Your task to perform on an android device: Search for beats solo 3 on walmart, select the first entry, add it to the cart, then select checkout. Image 0: 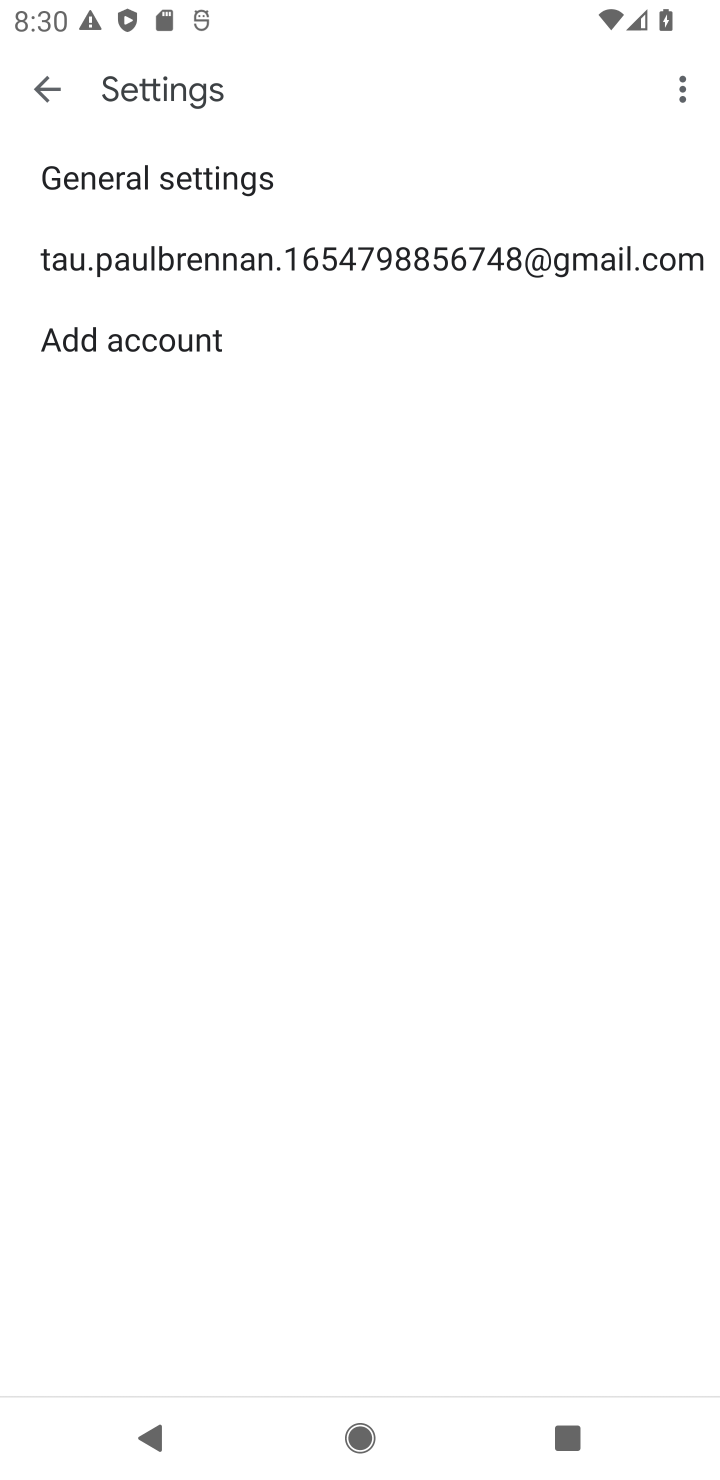
Step 0: press home button
Your task to perform on an android device: Search for beats solo 3 on walmart, select the first entry, add it to the cart, then select checkout. Image 1: 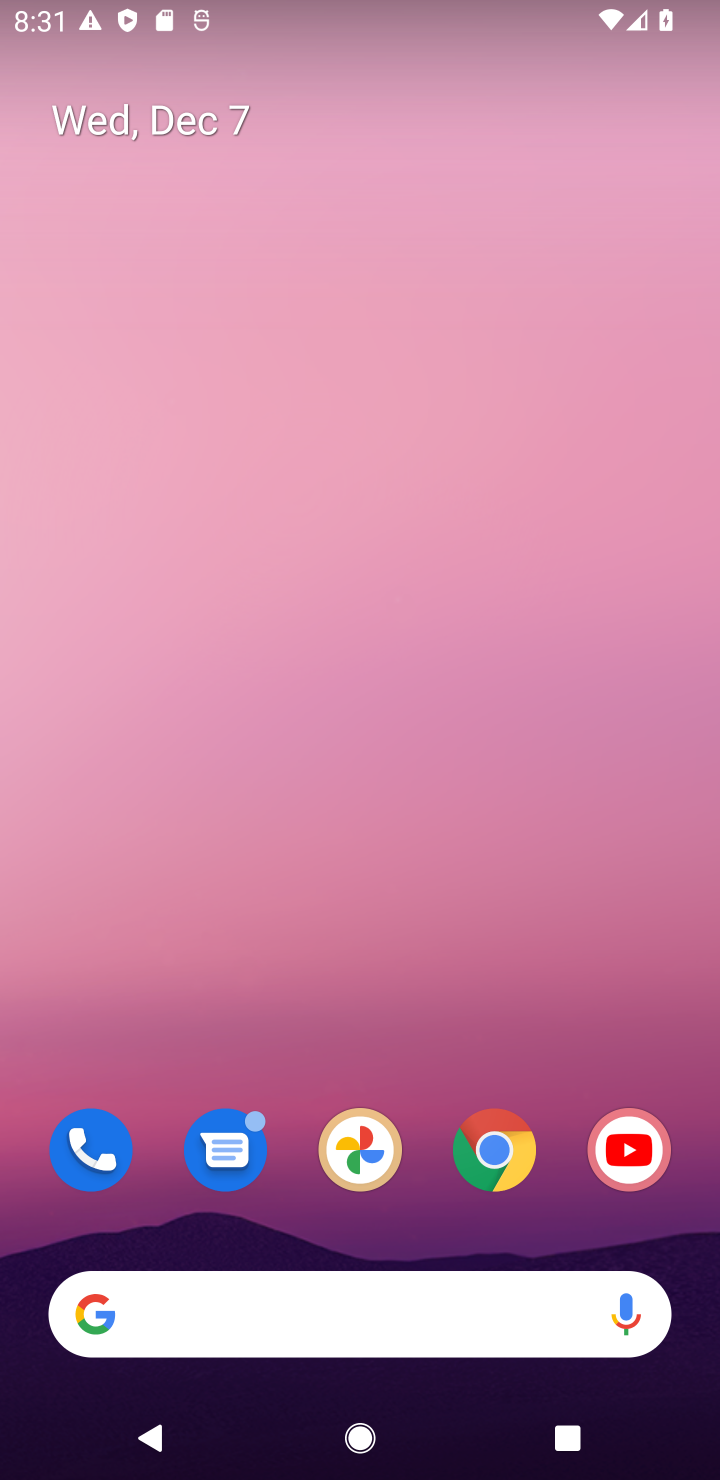
Step 1: click (495, 1140)
Your task to perform on an android device: Search for beats solo 3 on walmart, select the first entry, add it to the cart, then select checkout. Image 2: 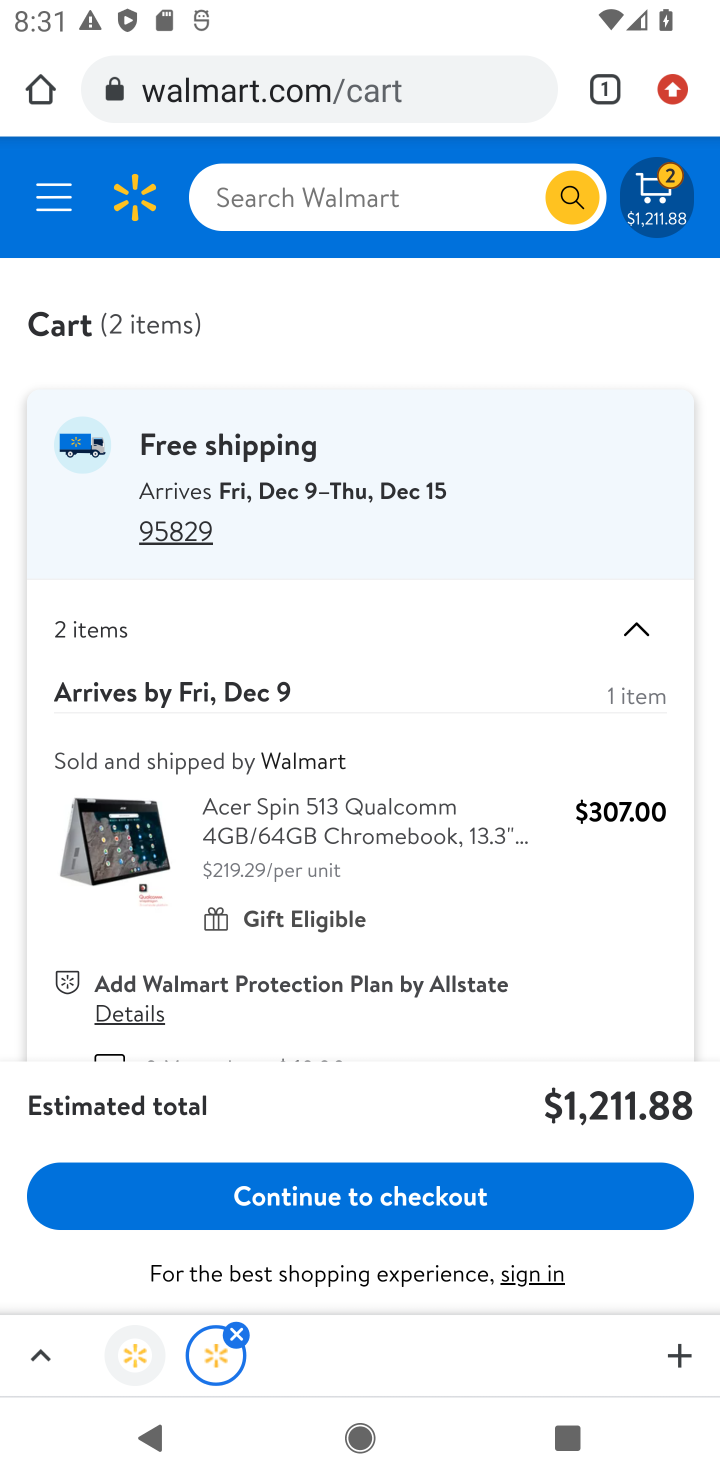
Step 2: click (367, 191)
Your task to perform on an android device: Search for beats solo 3 on walmart, select the first entry, add it to the cart, then select checkout. Image 3: 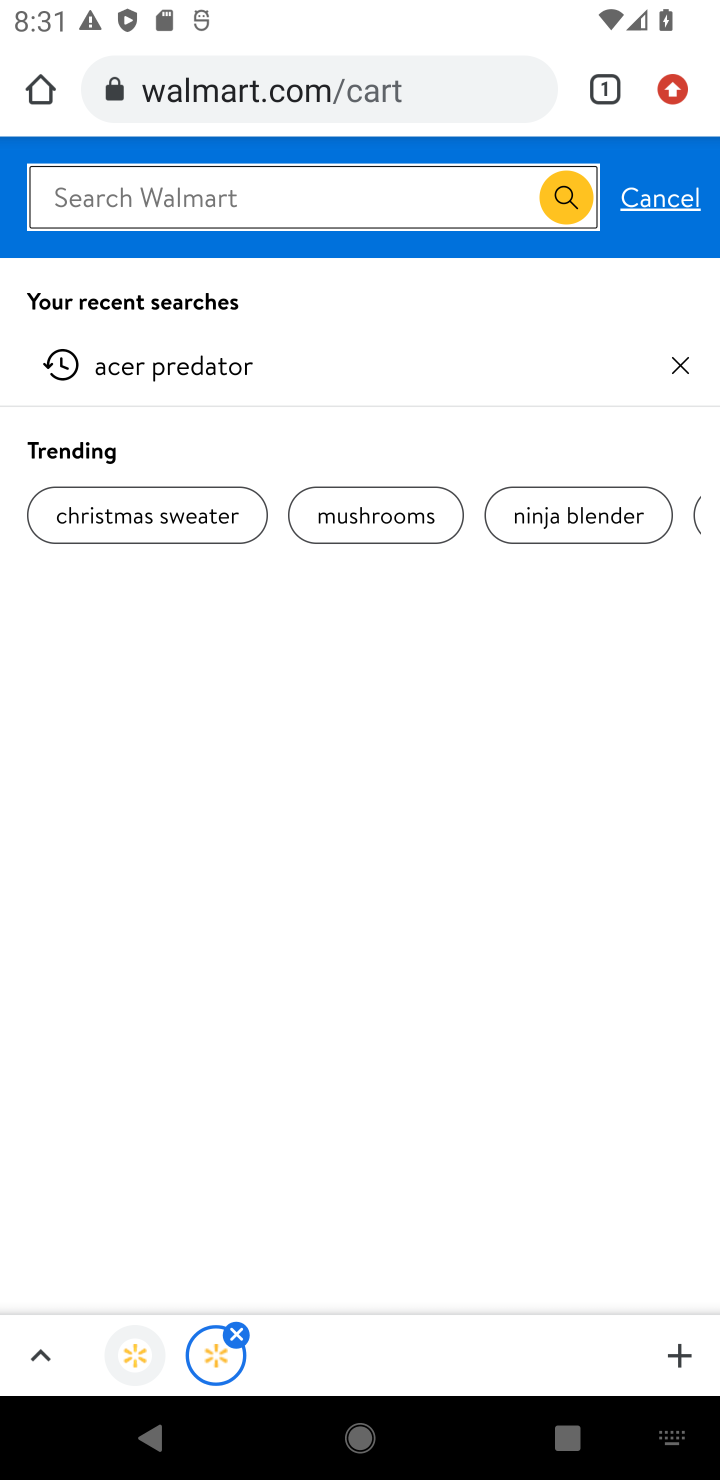
Step 3: type "beats solo 3"
Your task to perform on an android device: Search for beats solo 3 on walmart, select the first entry, add it to the cart, then select checkout. Image 4: 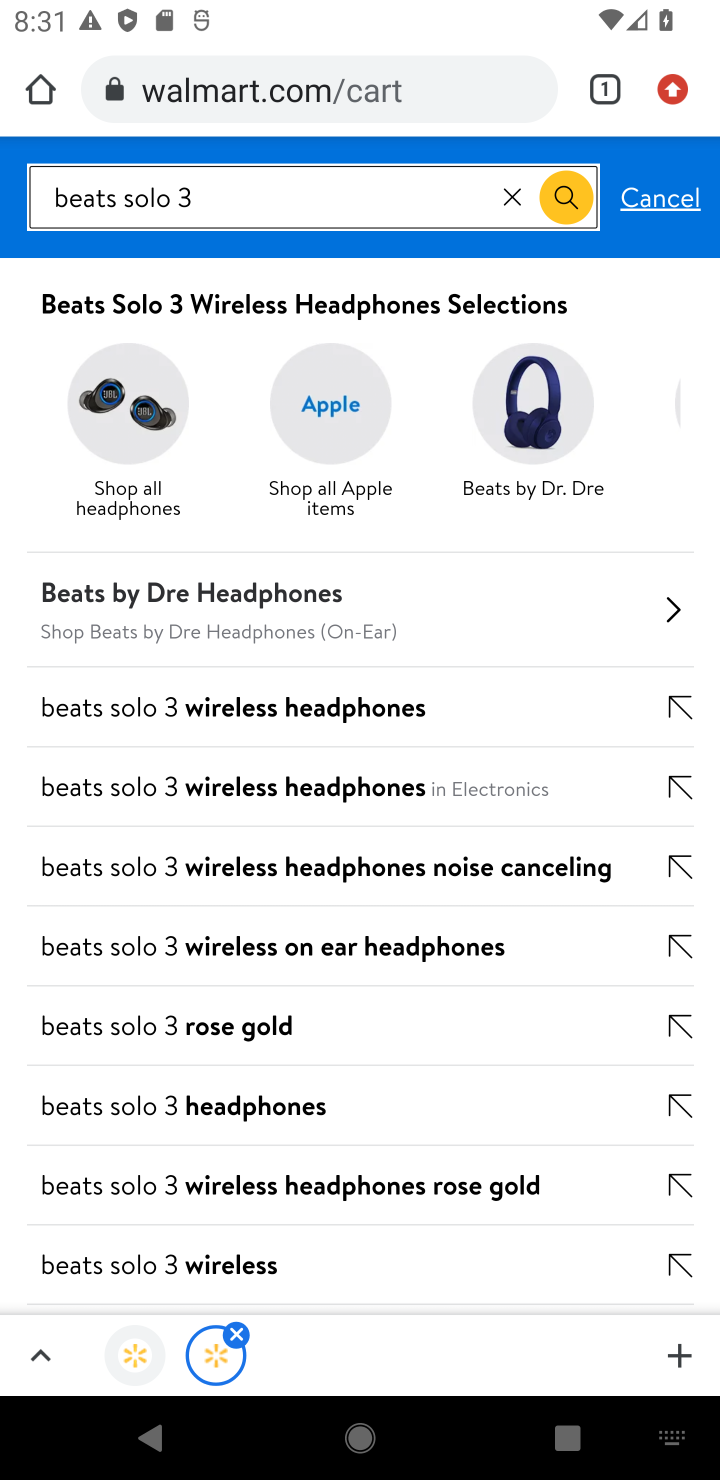
Step 4: click (251, 599)
Your task to perform on an android device: Search for beats solo 3 on walmart, select the first entry, add it to the cart, then select checkout. Image 5: 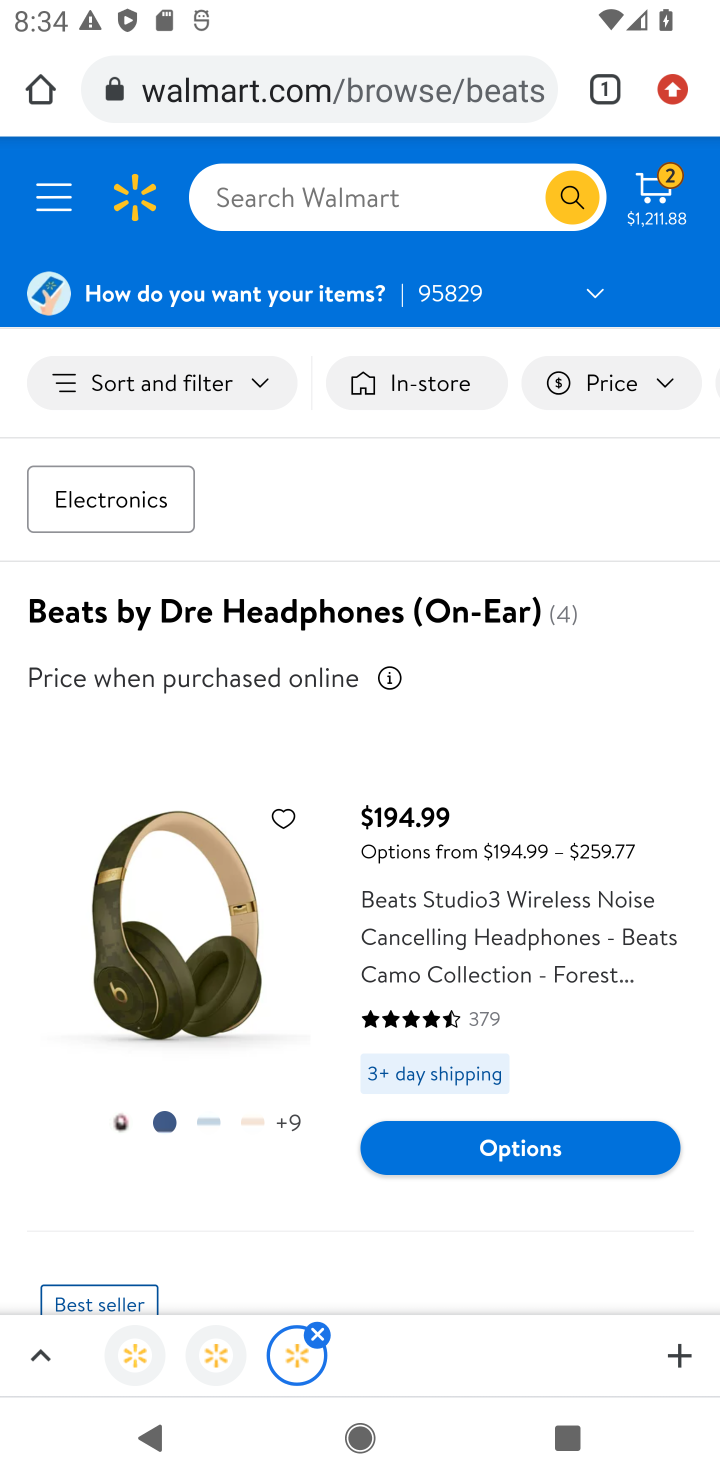
Step 5: task complete